Your task to perform on an android device: Clear the shopping cart on costco. Search for razer deathadder on costco, select the first entry, add it to the cart, then select checkout. Image 0: 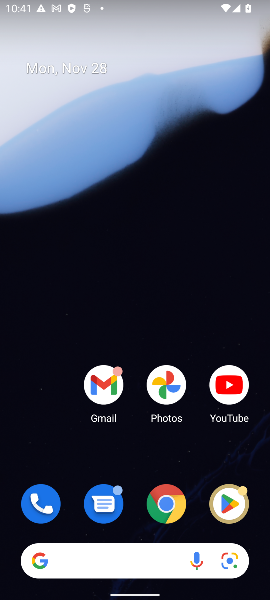
Step 0: click (163, 513)
Your task to perform on an android device: Clear the shopping cart on costco. Search for razer deathadder on costco, select the first entry, add it to the cart, then select checkout. Image 1: 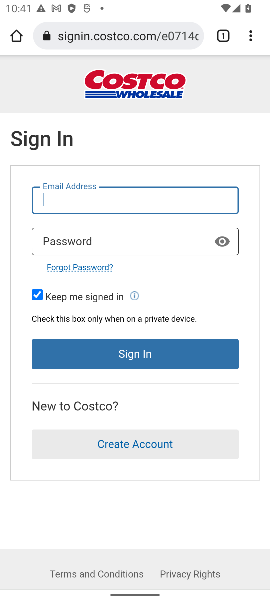
Step 1: press back button
Your task to perform on an android device: Clear the shopping cart on costco. Search for razer deathadder on costco, select the first entry, add it to the cart, then select checkout. Image 2: 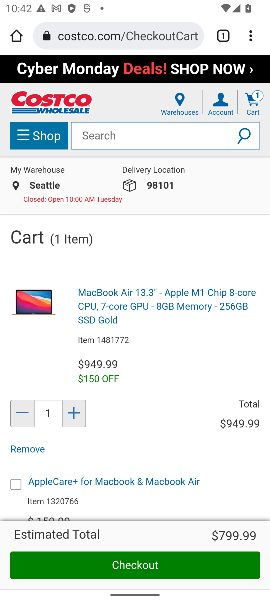
Step 2: drag from (160, 434) to (173, 219)
Your task to perform on an android device: Clear the shopping cart on costco. Search for razer deathadder on costco, select the first entry, add it to the cart, then select checkout. Image 3: 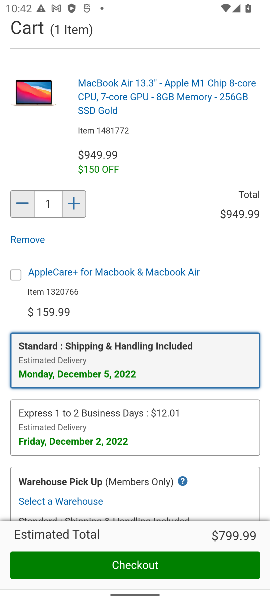
Step 3: drag from (170, 398) to (169, 280)
Your task to perform on an android device: Clear the shopping cart on costco. Search for razer deathadder on costco, select the first entry, add it to the cart, then select checkout. Image 4: 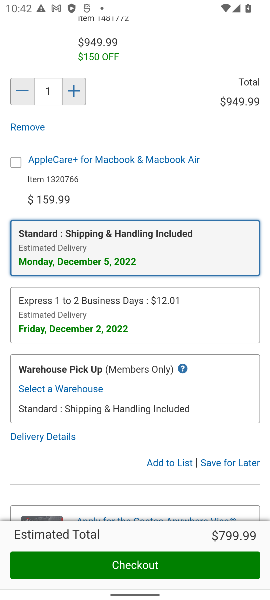
Step 4: click (230, 463)
Your task to perform on an android device: Clear the shopping cart on costco. Search for razer deathadder on costco, select the first entry, add it to the cart, then select checkout. Image 5: 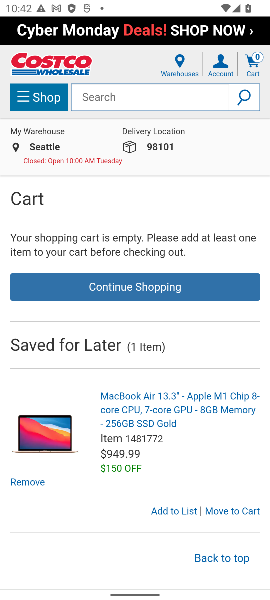
Step 5: click (99, 95)
Your task to perform on an android device: Clear the shopping cart on costco. Search for razer deathadder on costco, select the first entry, add it to the cart, then select checkout. Image 6: 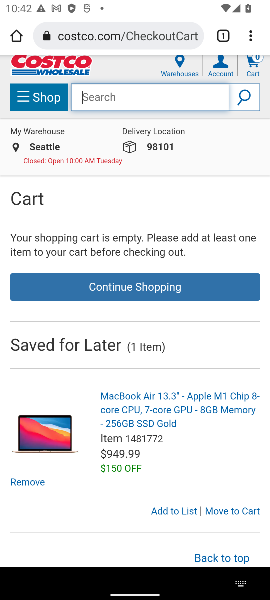
Step 6: type "razer deathadder"
Your task to perform on an android device: Clear the shopping cart on costco. Search for razer deathadder on costco, select the first entry, add it to the cart, then select checkout. Image 7: 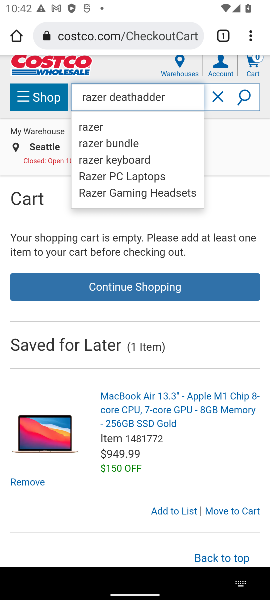
Step 7: click (242, 94)
Your task to perform on an android device: Clear the shopping cart on costco. Search for razer deathadder on costco, select the first entry, add it to the cart, then select checkout. Image 8: 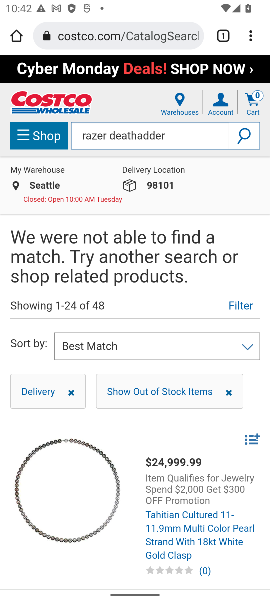
Step 8: task complete